Your task to perform on an android device: Open maps Image 0: 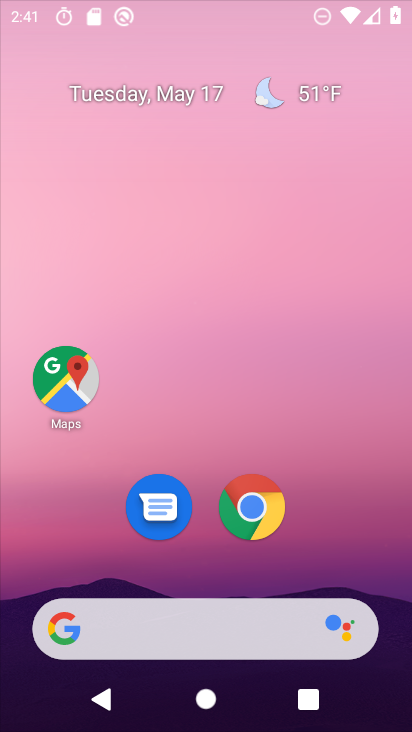
Step 0: click (197, 531)
Your task to perform on an android device: Open maps Image 1: 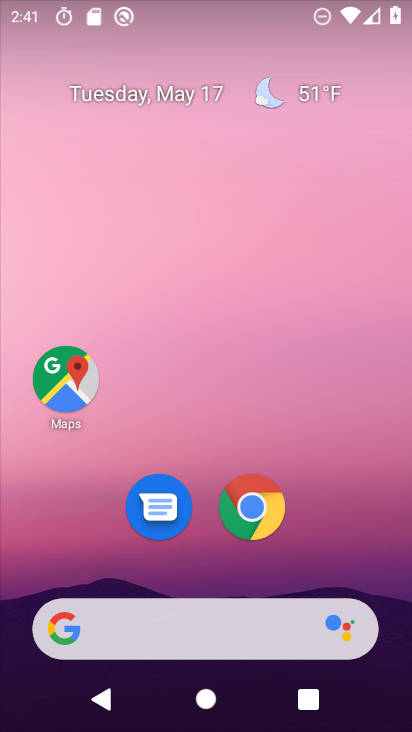
Step 1: click (67, 379)
Your task to perform on an android device: Open maps Image 2: 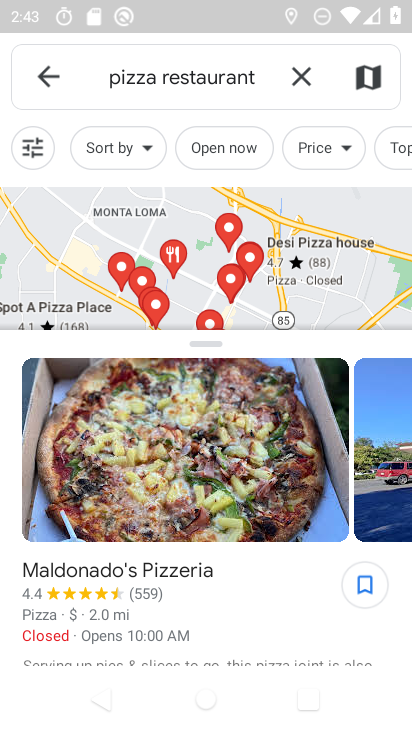
Step 2: task complete